Your task to perform on an android device: Open Wikipedia Image 0: 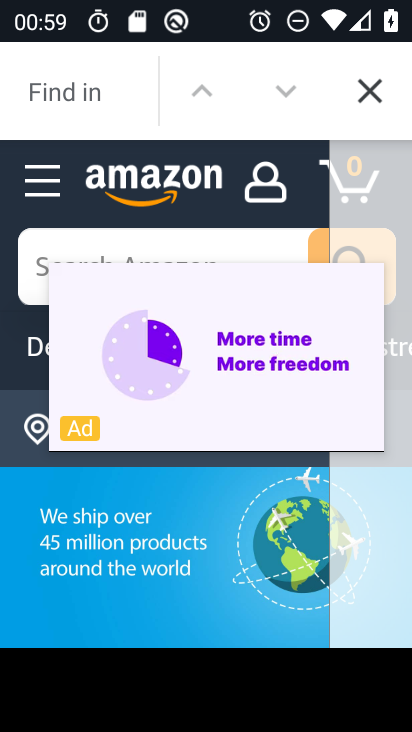
Step 0: press home button
Your task to perform on an android device: Open Wikipedia Image 1: 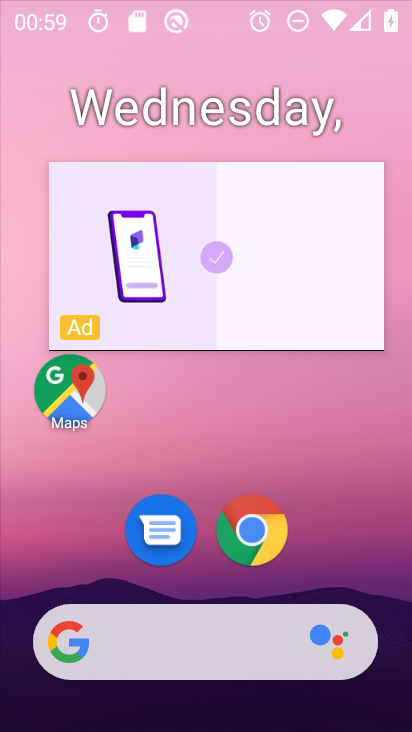
Step 1: drag from (371, 613) to (346, 171)
Your task to perform on an android device: Open Wikipedia Image 2: 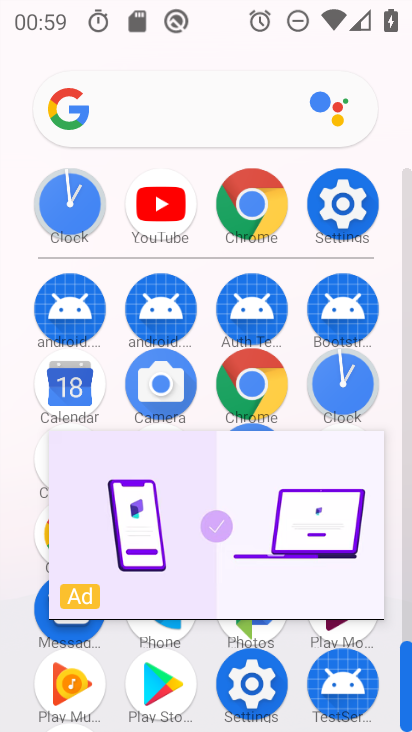
Step 2: click (360, 457)
Your task to perform on an android device: Open Wikipedia Image 3: 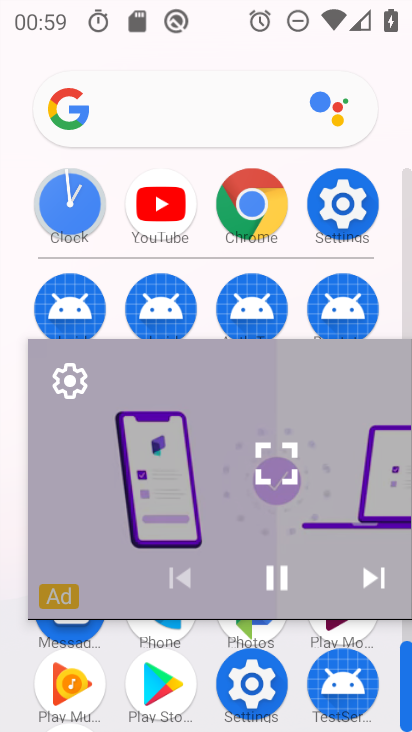
Step 3: drag from (339, 495) to (165, 524)
Your task to perform on an android device: Open Wikipedia Image 4: 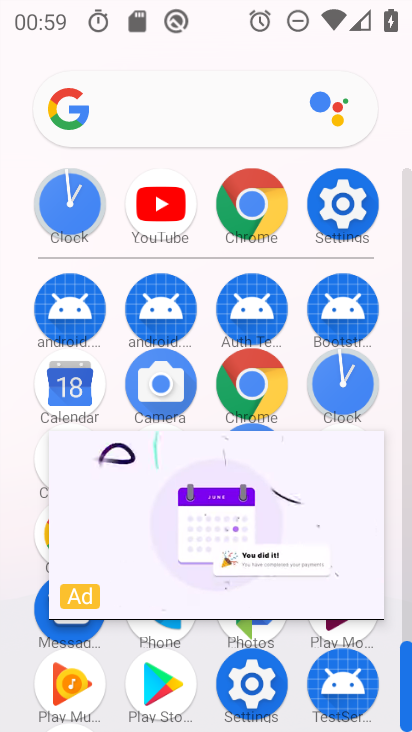
Step 4: click (353, 444)
Your task to perform on an android device: Open Wikipedia Image 5: 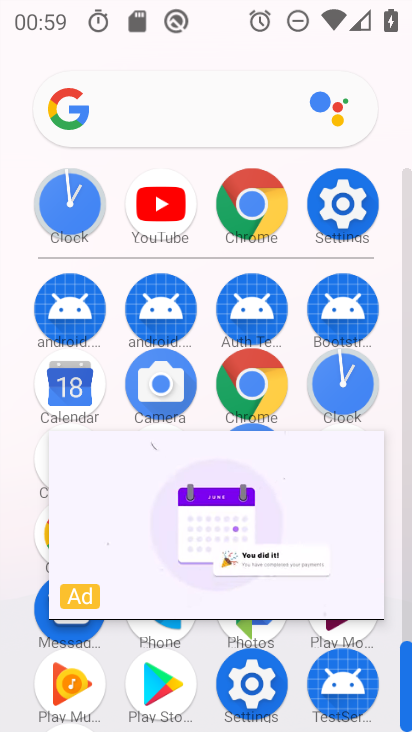
Step 5: click (353, 444)
Your task to perform on an android device: Open Wikipedia Image 6: 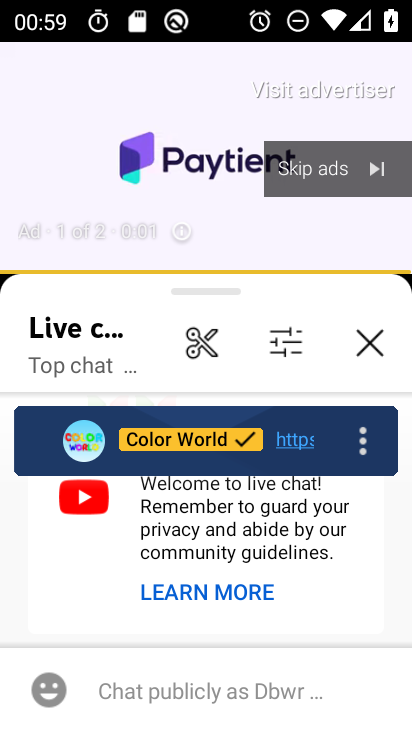
Step 6: click (379, 341)
Your task to perform on an android device: Open Wikipedia Image 7: 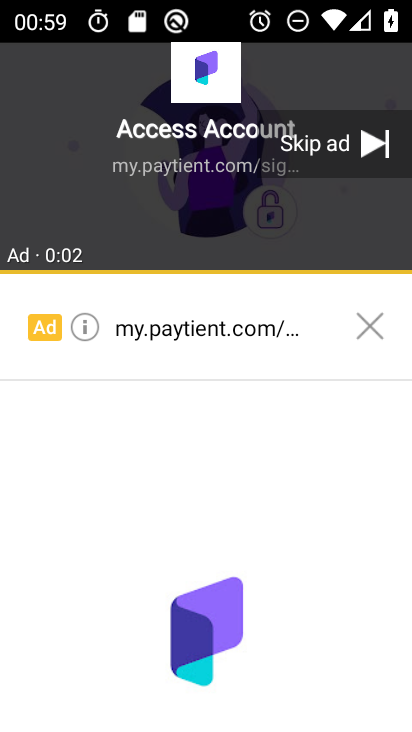
Step 7: click (300, 143)
Your task to perform on an android device: Open Wikipedia Image 8: 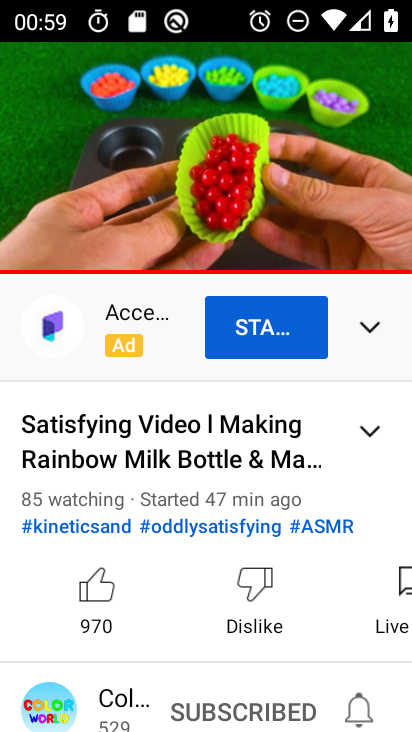
Step 8: click (211, 154)
Your task to perform on an android device: Open Wikipedia Image 9: 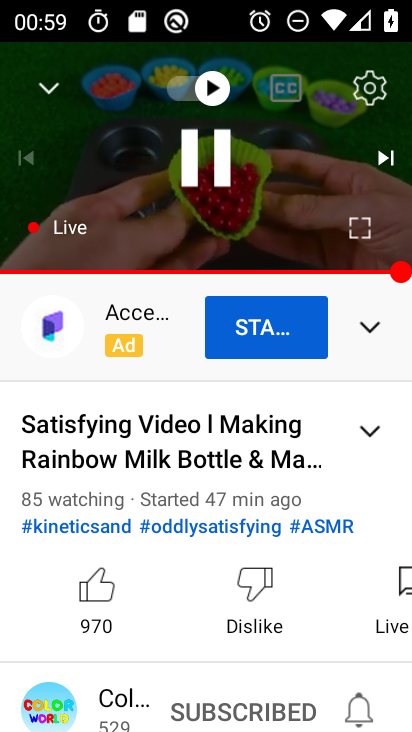
Step 9: click (211, 154)
Your task to perform on an android device: Open Wikipedia Image 10: 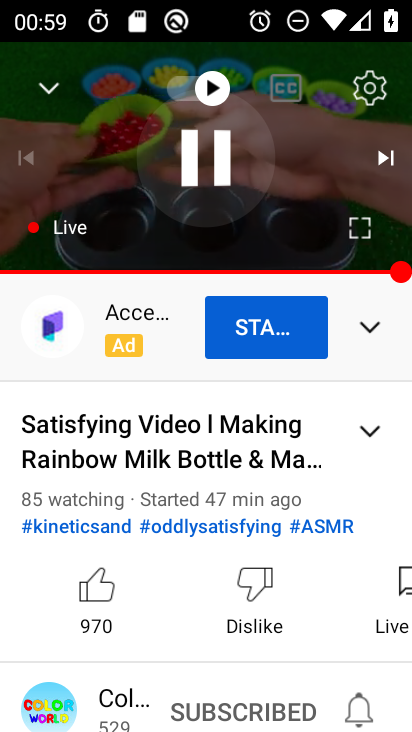
Step 10: click (211, 154)
Your task to perform on an android device: Open Wikipedia Image 11: 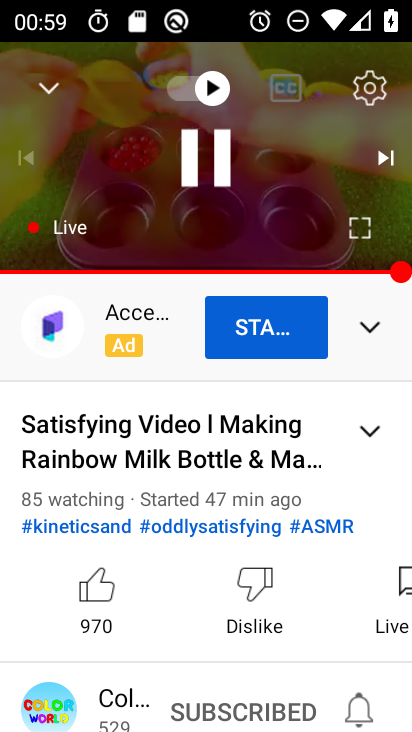
Step 11: click (223, 159)
Your task to perform on an android device: Open Wikipedia Image 12: 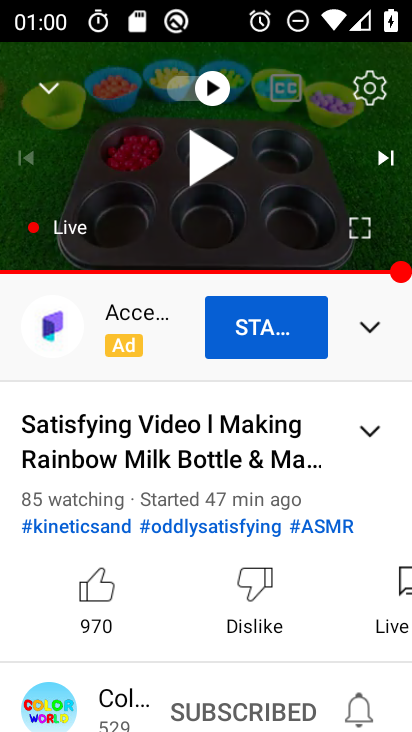
Step 12: press home button
Your task to perform on an android device: Open Wikipedia Image 13: 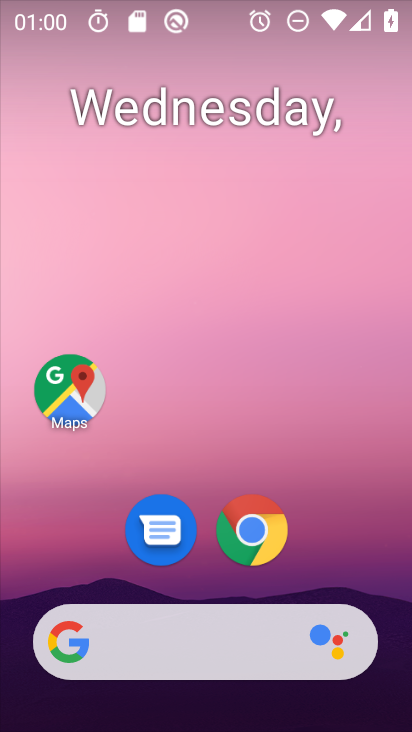
Step 13: drag from (123, 632) to (234, 5)
Your task to perform on an android device: Open Wikipedia Image 14: 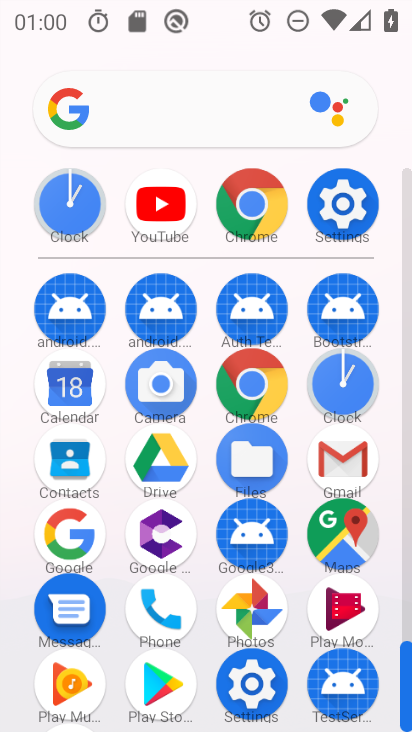
Step 14: click (252, 406)
Your task to perform on an android device: Open Wikipedia Image 15: 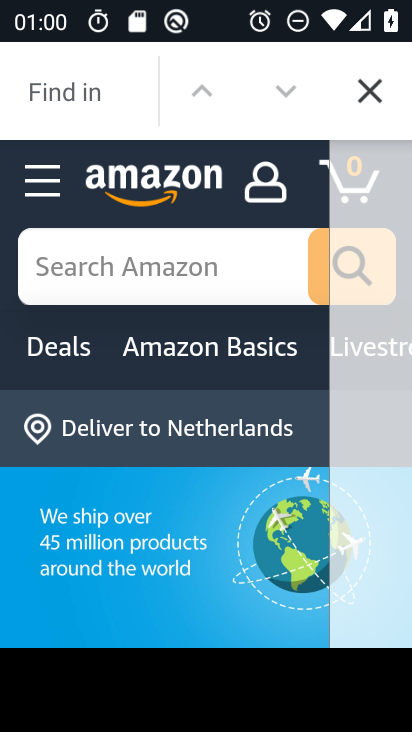
Step 15: click (376, 90)
Your task to perform on an android device: Open Wikipedia Image 16: 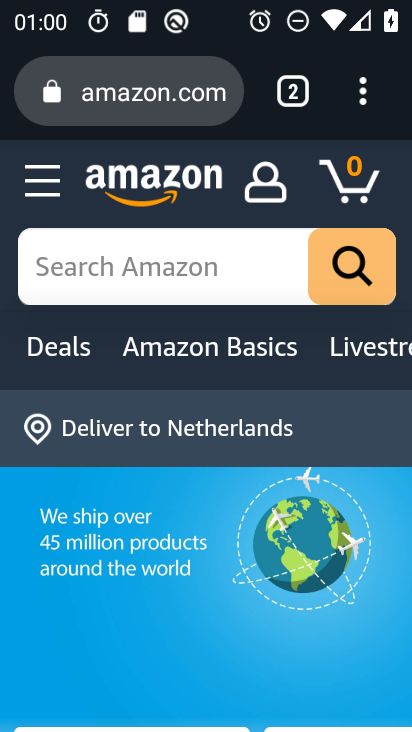
Step 16: drag from (365, 96) to (157, 172)
Your task to perform on an android device: Open Wikipedia Image 17: 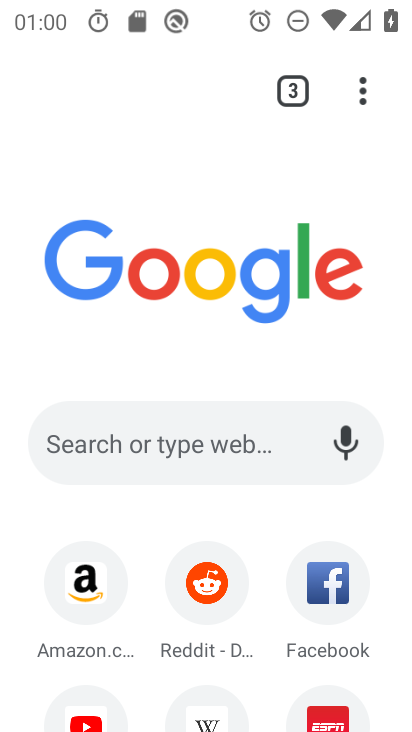
Step 17: drag from (192, 656) to (252, 315)
Your task to perform on an android device: Open Wikipedia Image 18: 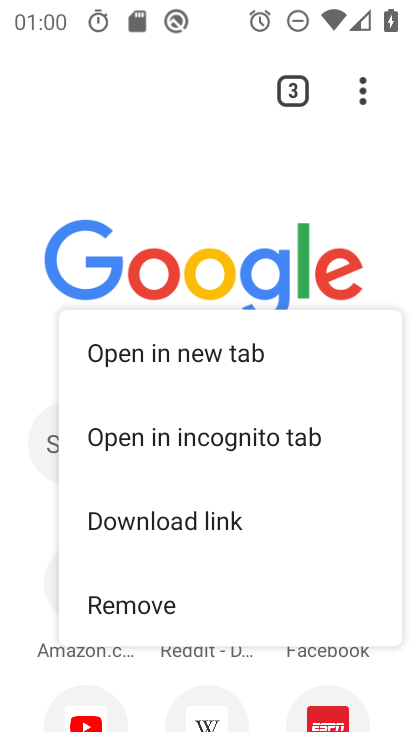
Step 18: click (215, 158)
Your task to perform on an android device: Open Wikipedia Image 19: 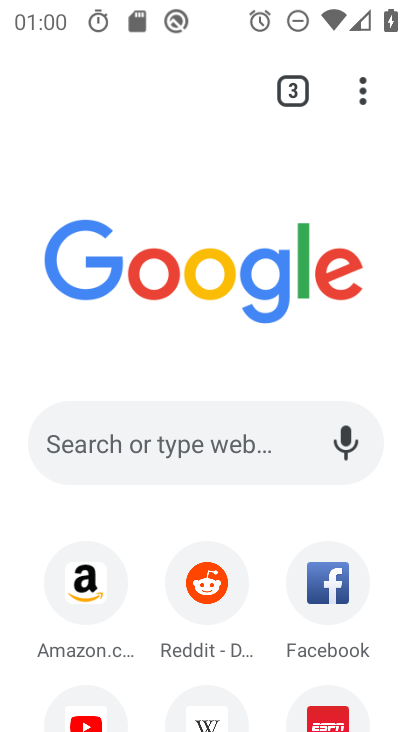
Step 19: click (207, 721)
Your task to perform on an android device: Open Wikipedia Image 20: 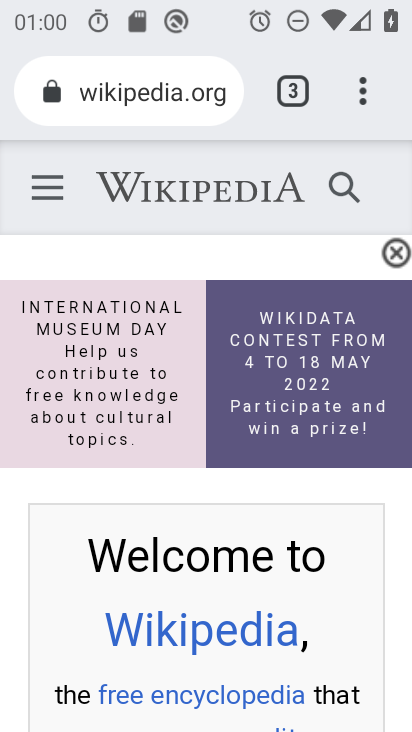
Step 20: task complete